Your task to perform on an android device: clear all cookies in the chrome app Image 0: 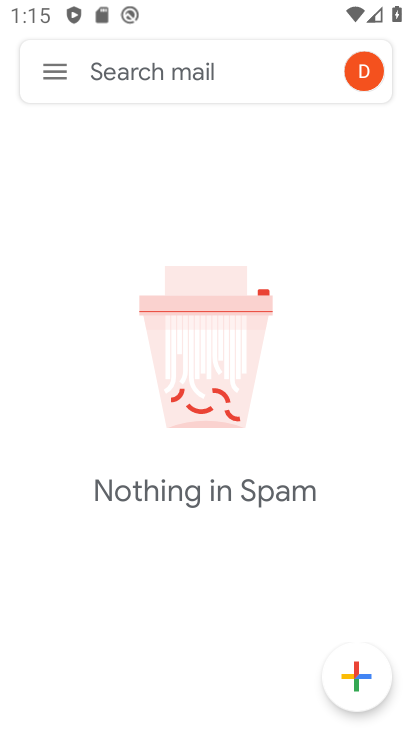
Step 0: press back button
Your task to perform on an android device: clear all cookies in the chrome app Image 1: 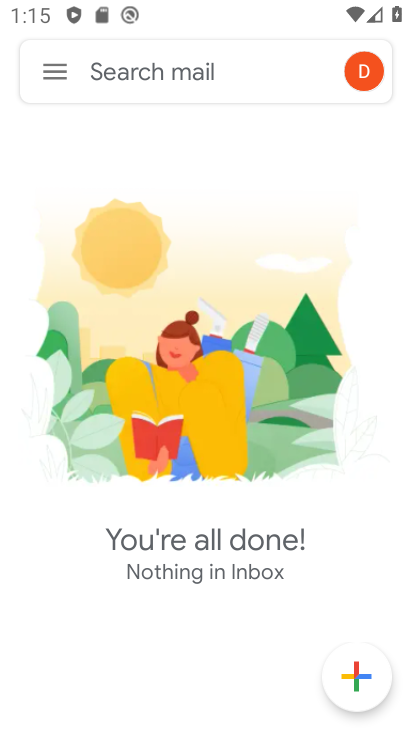
Step 1: press back button
Your task to perform on an android device: clear all cookies in the chrome app Image 2: 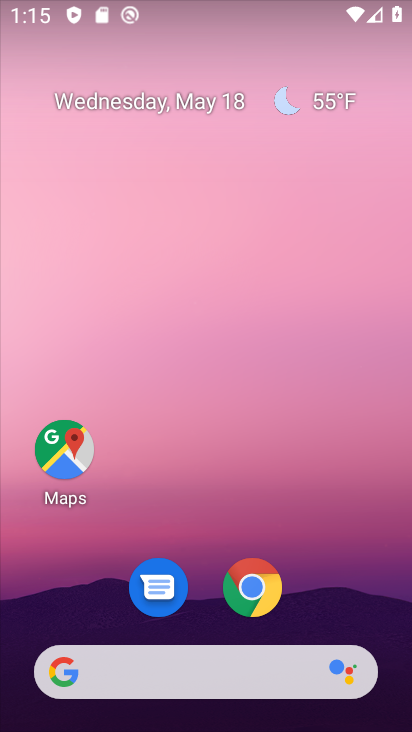
Step 2: click (269, 586)
Your task to perform on an android device: clear all cookies in the chrome app Image 3: 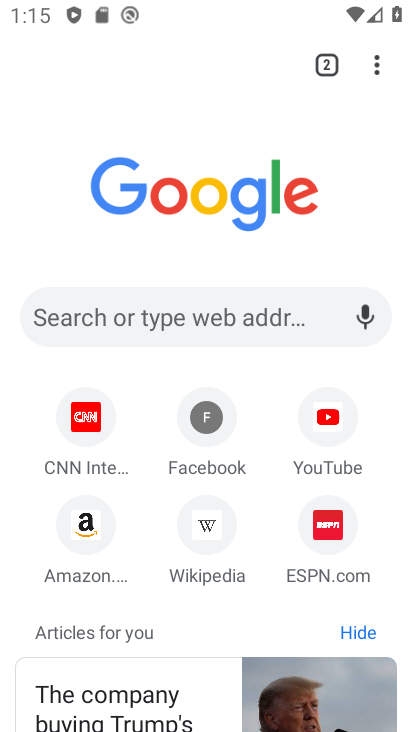
Step 3: drag from (370, 65) to (150, 369)
Your task to perform on an android device: clear all cookies in the chrome app Image 4: 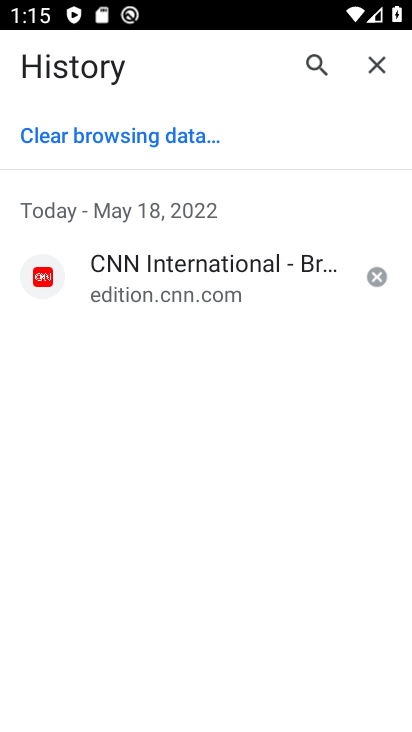
Step 4: click (88, 131)
Your task to perform on an android device: clear all cookies in the chrome app Image 5: 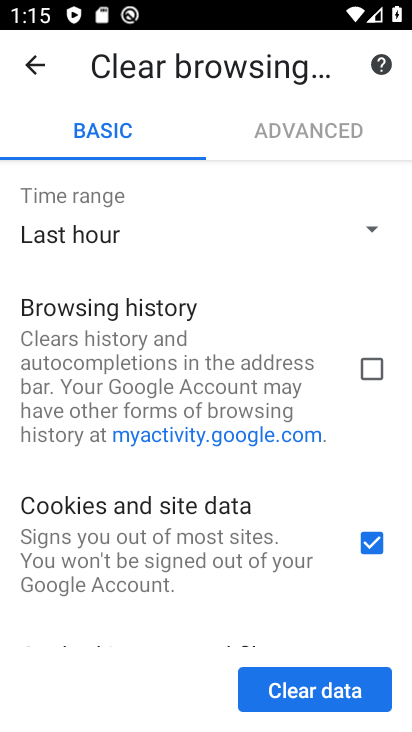
Step 5: click (298, 689)
Your task to perform on an android device: clear all cookies in the chrome app Image 6: 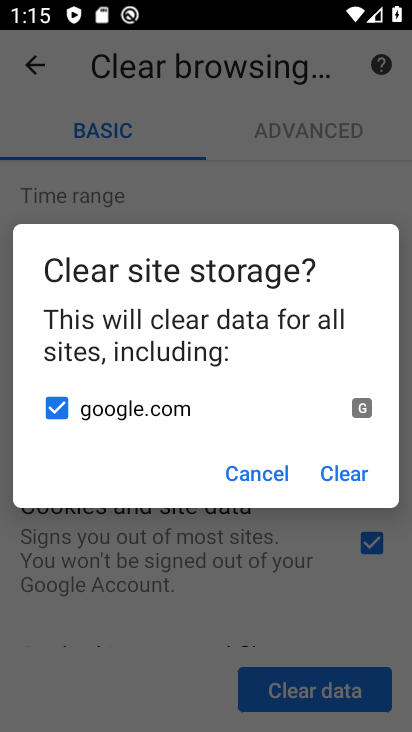
Step 6: click (324, 468)
Your task to perform on an android device: clear all cookies in the chrome app Image 7: 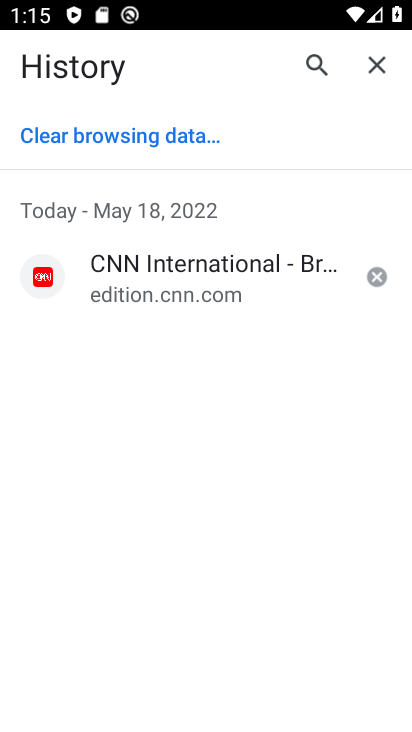
Step 7: task complete